Your task to perform on an android device: Go to notification settings Image 0: 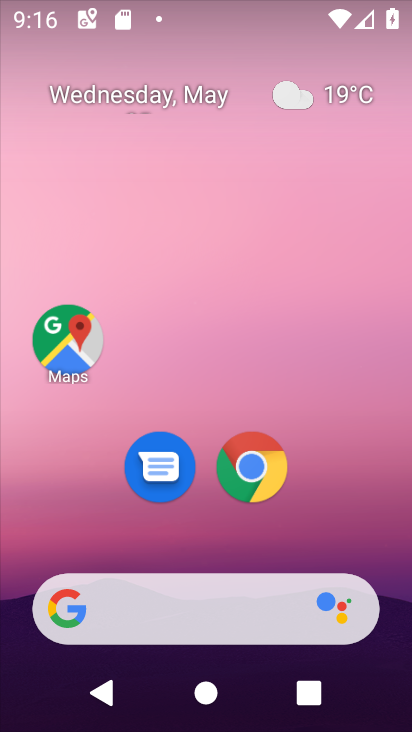
Step 0: drag from (353, 459) to (301, 9)
Your task to perform on an android device: Go to notification settings Image 1: 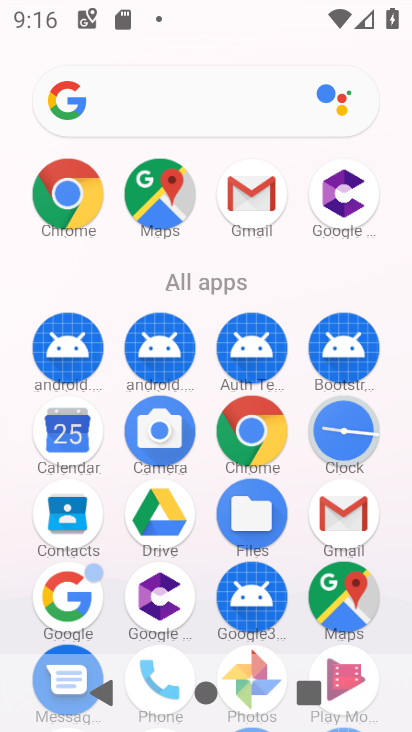
Step 1: drag from (319, 547) to (343, 232)
Your task to perform on an android device: Go to notification settings Image 2: 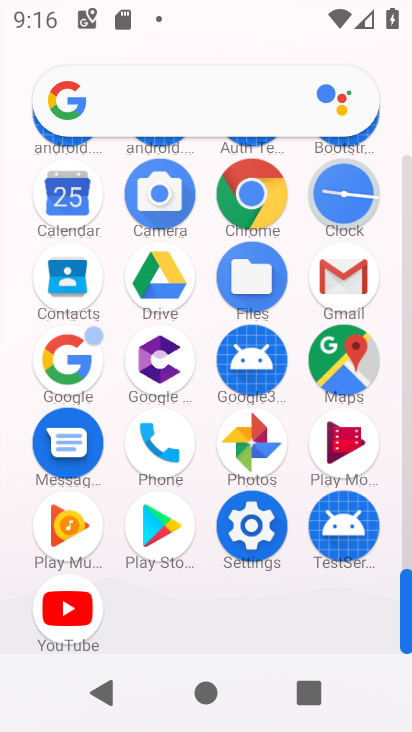
Step 2: click (256, 548)
Your task to perform on an android device: Go to notification settings Image 3: 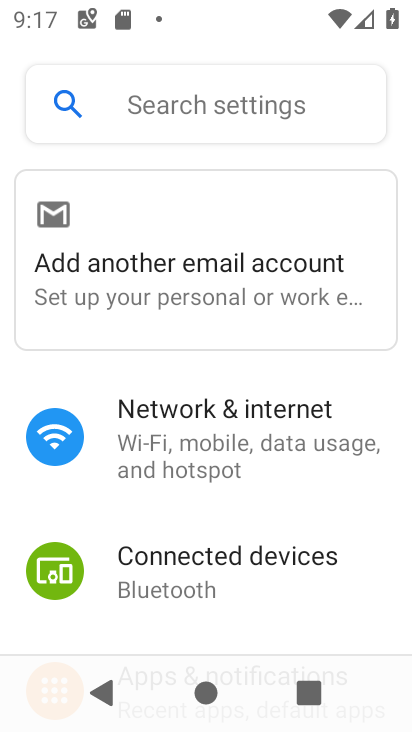
Step 3: drag from (220, 525) to (232, 96)
Your task to perform on an android device: Go to notification settings Image 4: 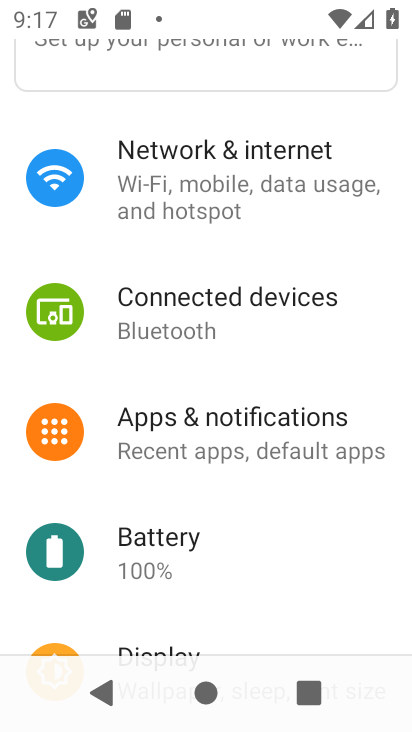
Step 4: click (222, 421)
Your task to perform on an android device: Go to notification settings Image 5: 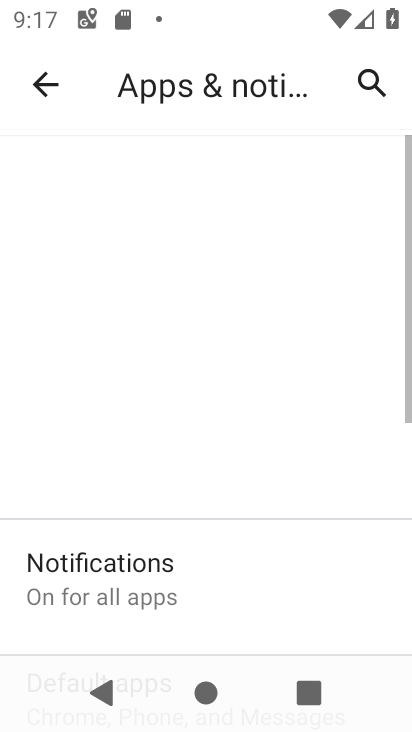
Step 5: click (119, 554)
Your task to perform on an android device: Go to notification settings Image 6: 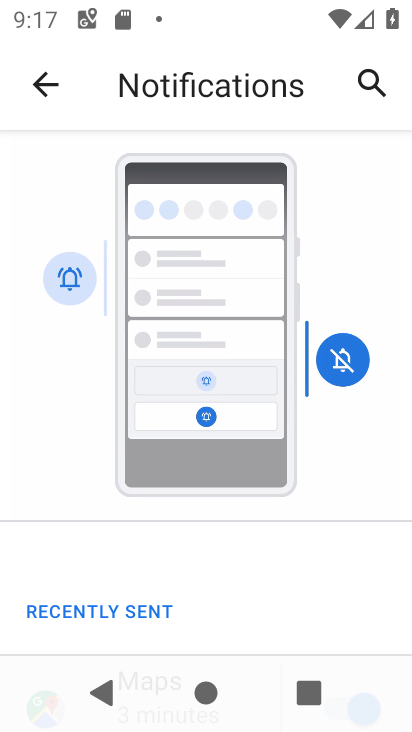
Step 6: task complete